Your task to perform on an android device: search for starred emails in the gmail app Image 0: 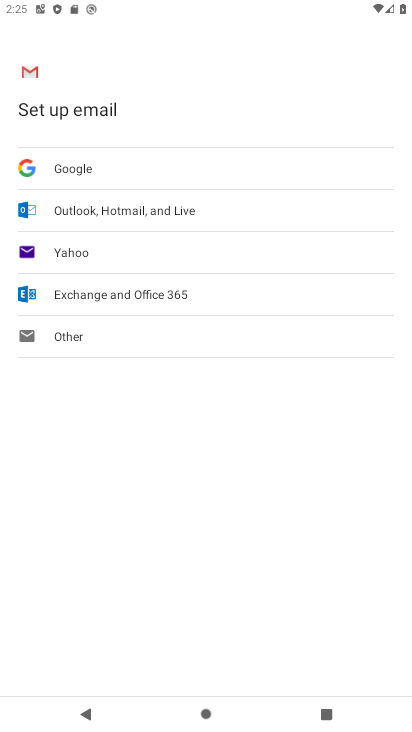
Step 0: press home button
Your task to perform on an android device: search for starred emails in the gmail app Image 1: 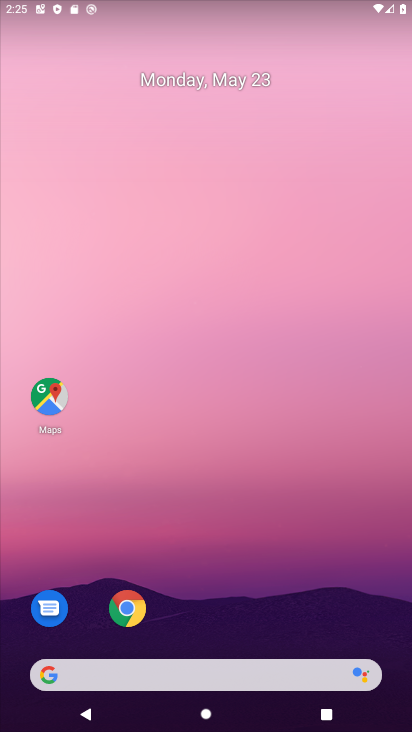
Step 1: drag from (202, 641) to (250, 242)
Your task to perform on an android device: search for starred emails in the gmail app Image 2: 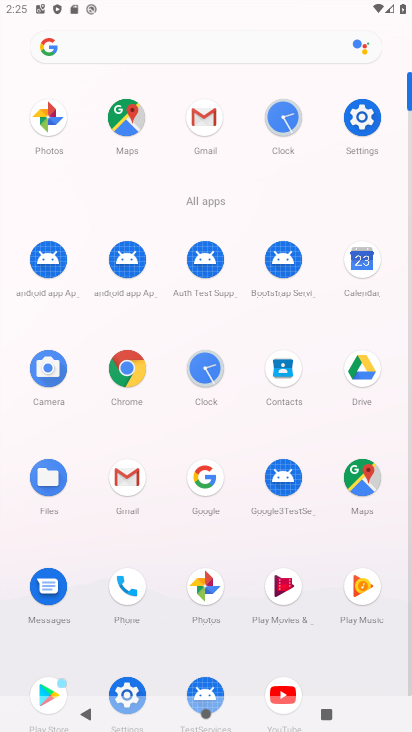
Step 2: click (130, 474)
Your task to perform on an android device: search for starred emails in the gmail app Image 3: 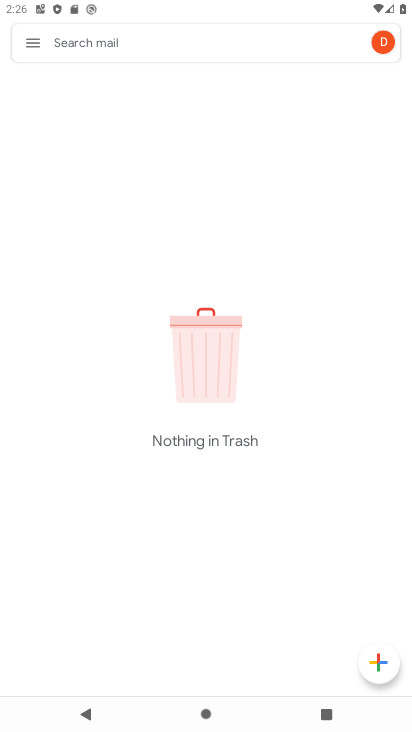
Step 3: click (29, 43)
Your task to perform on an android device: search for starred emails in the gmail app Image 4: 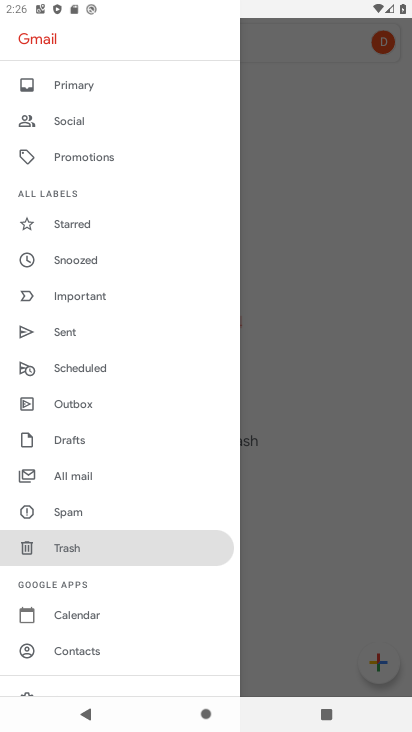
Step 4: click (72, 229)
Your task to perform on an android device: search for starred emails in the gmail app Image 5: 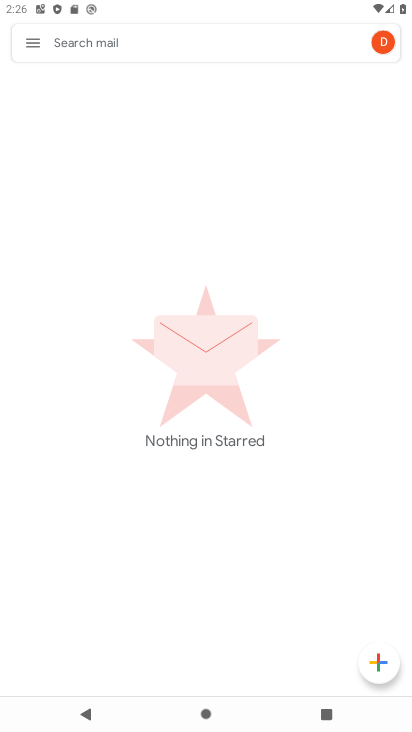
Step 5: task complete